Your task to perform on an android device: Open Google Image 0: 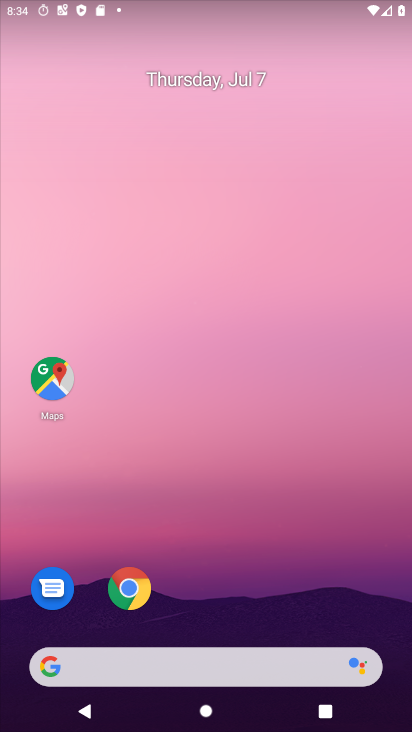
Step 0: drag from (185, 668) to (336, 51)
Your task to perform on an android device: Open Google Image 1: 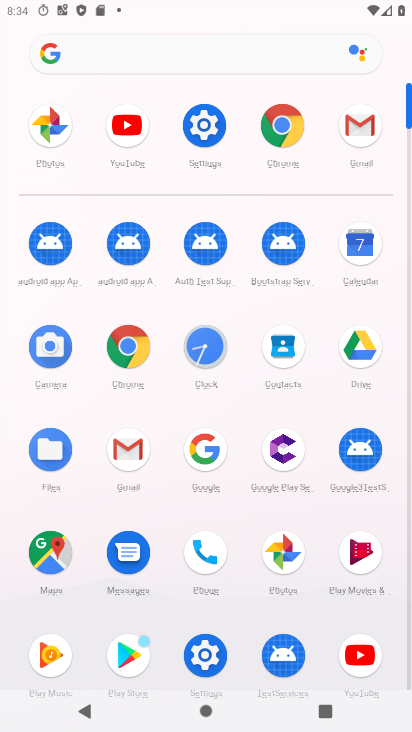
Step 1: drag from (202, 454) to (249, 385)
Your task to perform on an android device: Open Google Image 2: 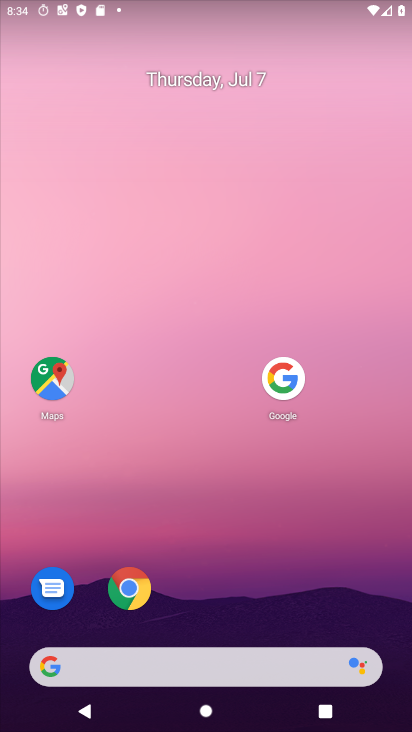
Step 2: click (279, 379)
Your task to perform on an android device: Open Google Image 3: 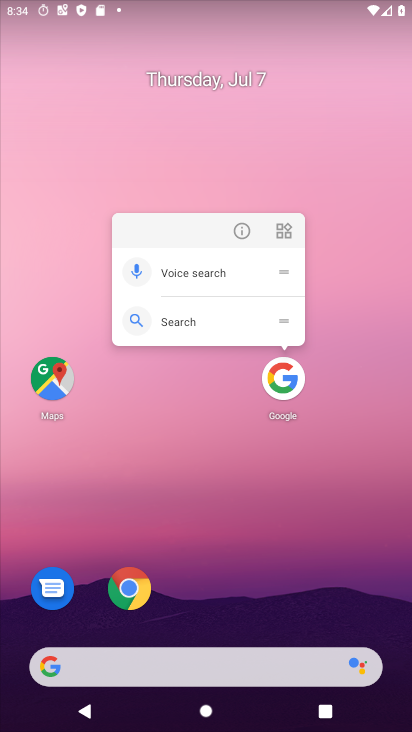
Step 3: click (286, 388)
Your task to perform on an android device: Open Google Image 4: 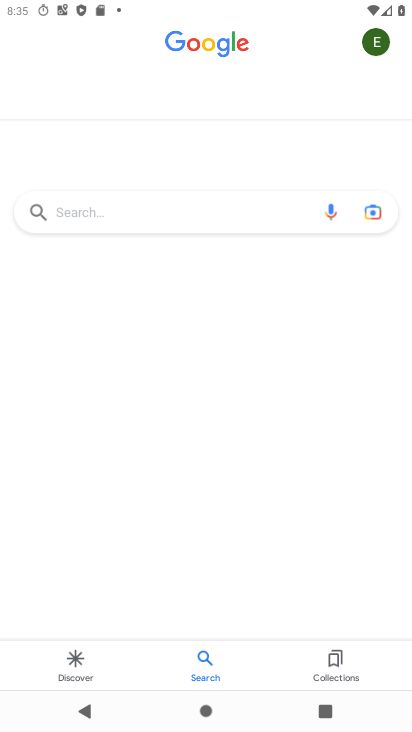
Step 4: task complete